Your task to perform on an android device: find snoozed emails in the gmail app Image 0: 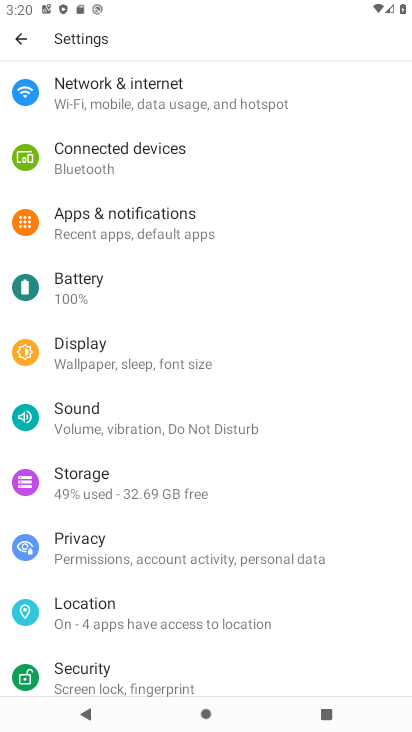
Step 0: press home button
Your task to perform on an android device: find snoozed emails in the gmail app Image 1: 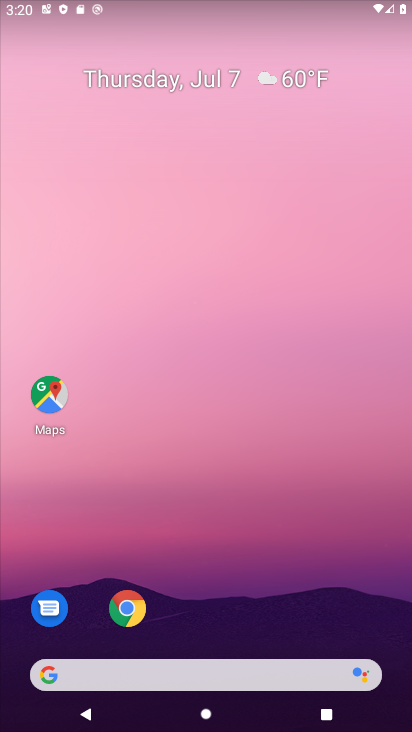
Step 1: drag from (160, 665) to (44, 5)
Your task to perform on an android device: find snoozed emails in the gmail app Image 2: 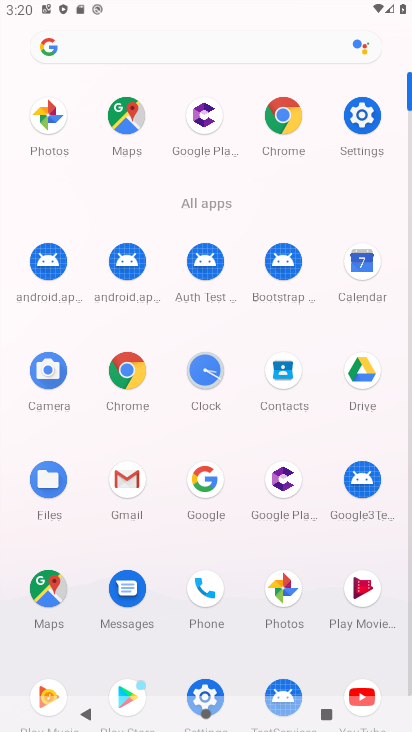
Step 2: click (112, 486)
Your task to perform on an android device: find snoozed emails in the gmail app Image 3: 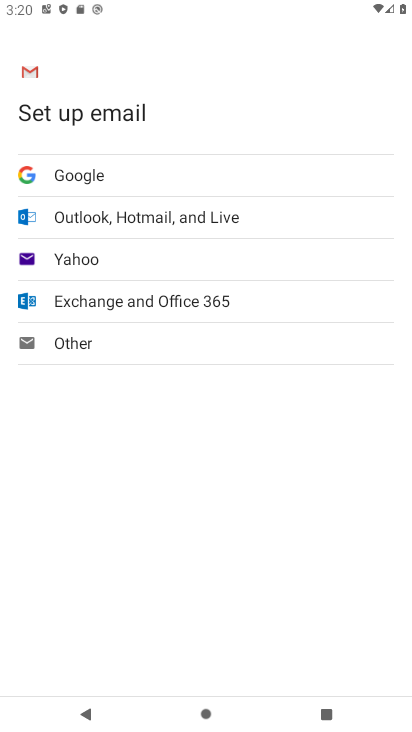
Step 3: press back button
Your task to perform on an android device: find snoozed emails in the gmail app Image 4: 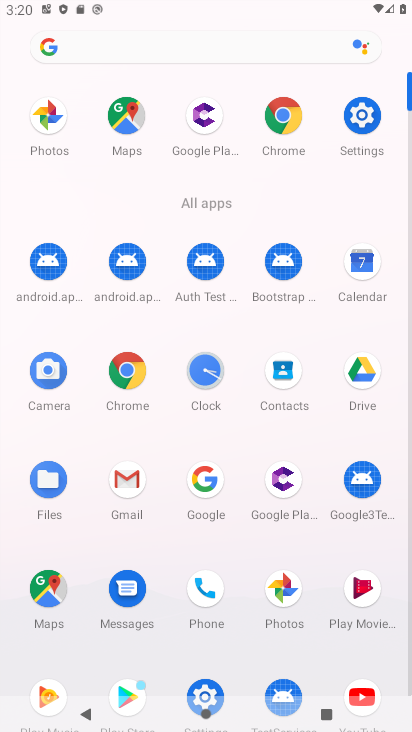
Step 4: click (128, 495)
Your task to perform on an android device: find snoozed emails in the gmail app Image 5: 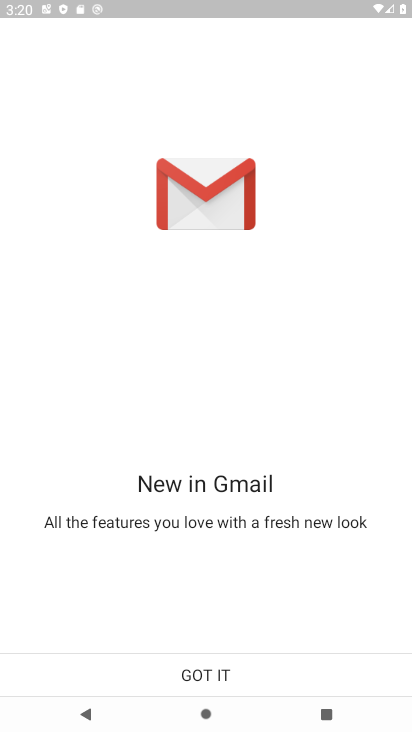
Step 5: click (231, 663)
Your task to perform on an android device: find snoozed emails in the gmail app Image 6: 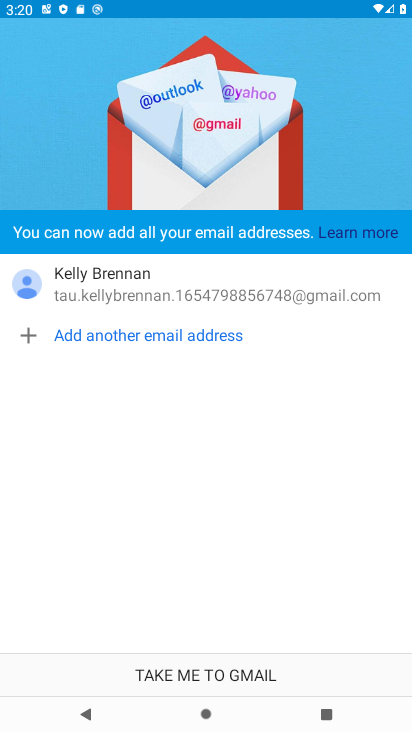
Step 6: click (232, 676)
Your task to perform on an android device: find snoozed emails in the gmail app Image 7: 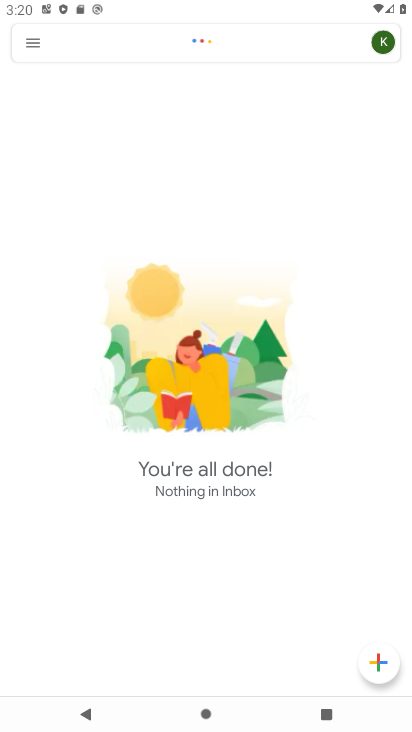
Step 7: click (27, 47)
Your task to perform on an android device: find snoozed emails in the gmail app Image 8: 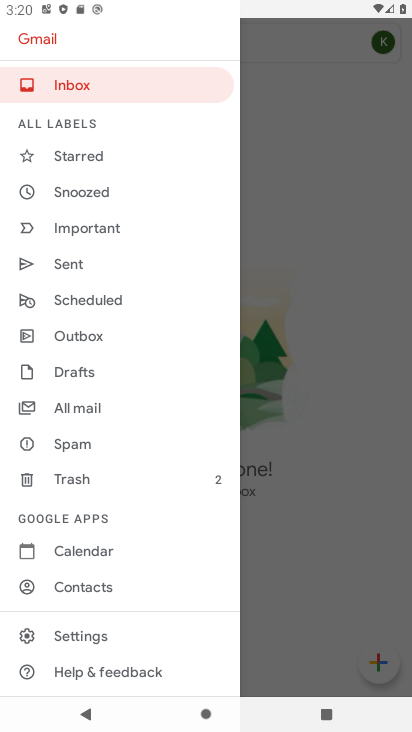
Step 8: click (90, 190)
Your task to perform on an android device: find snoozed emails in the gmail app Image 9: 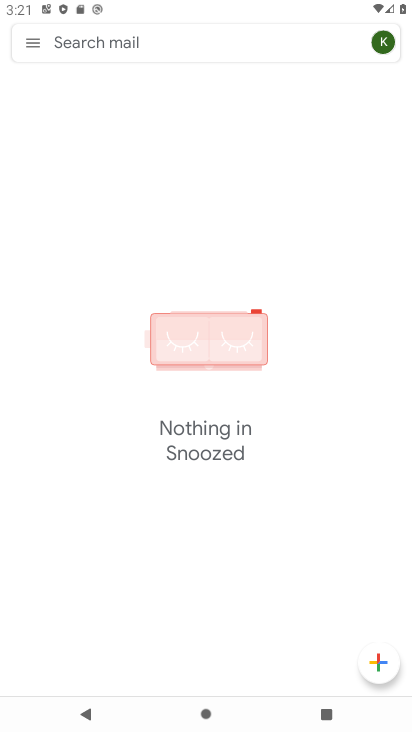
Step 9: task complete